Your task to perform on an android device: turn notification dots on Image 0: 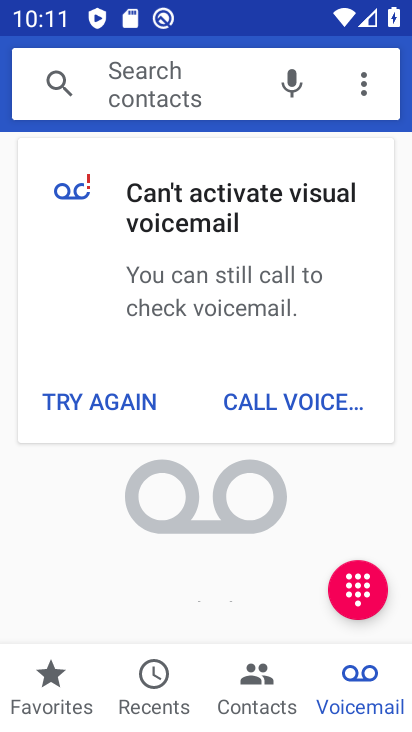
Step 0: press home button
Your task to perform on an android device: turn notification dots on Image 1: 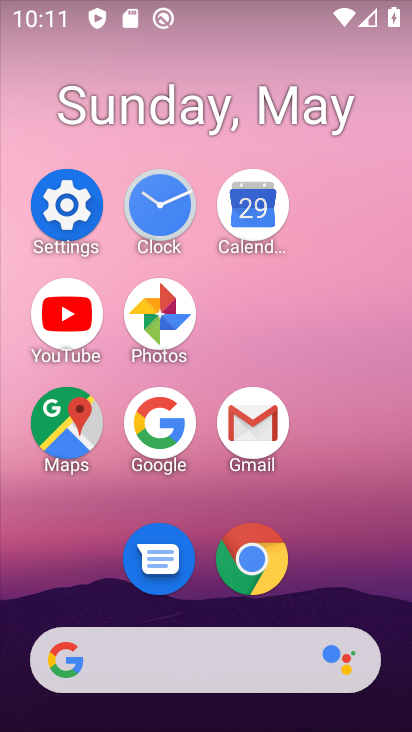
Step 1: click (55, 165)
Your task to perform on an android device: turn notification dots on Image 2: 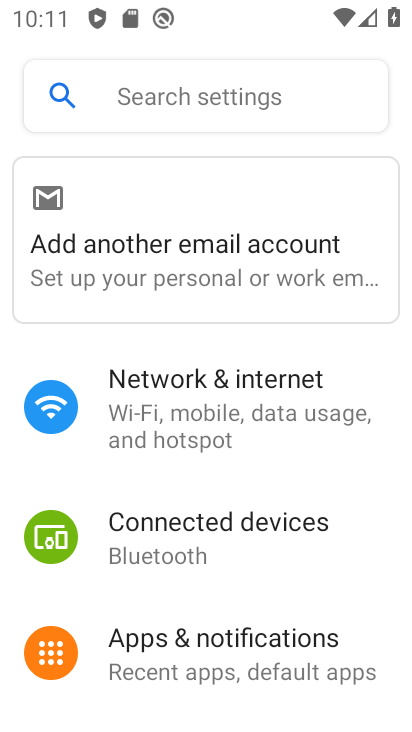
Step 2: click (290, 649)
Your task to perform on an android device: turn notification dots on Image 3: 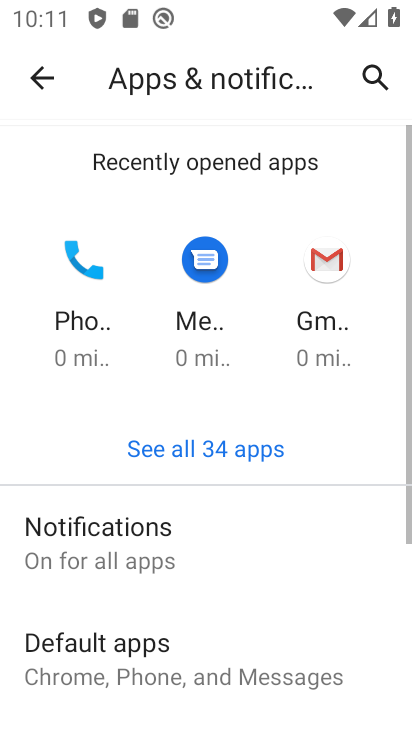
Step 3: click (208, 538)
Your task to perform on an android device: turn notification dots on Image 4: 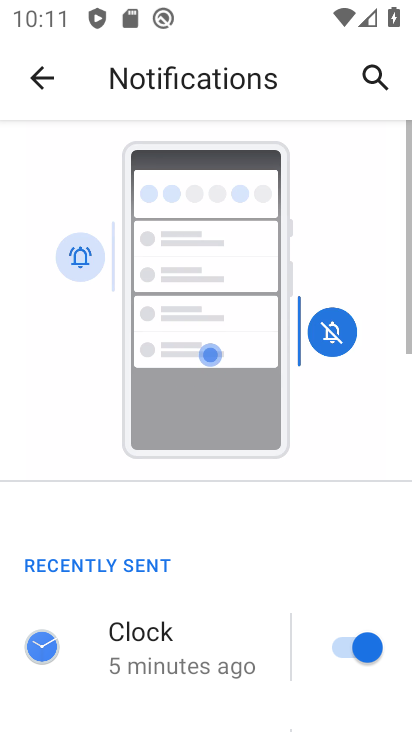
Step 4: drag from (208, 534) to (244, 120)
Your task to perform on an android device: turn notification dots on Image 5: 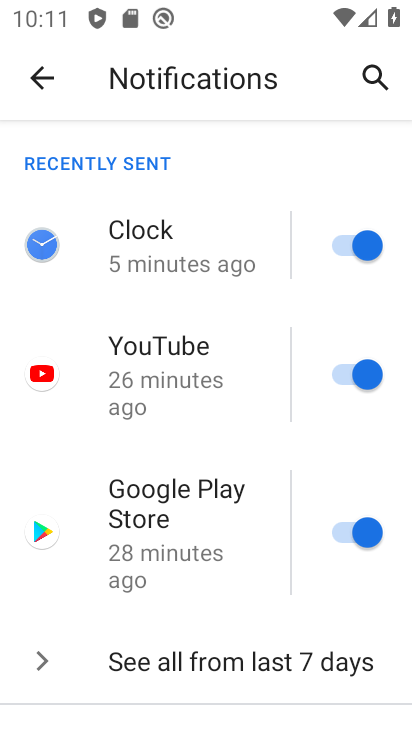
Step 5: click (221, 106)
Your task to perform on an android device: turn notification dots on Image 6: 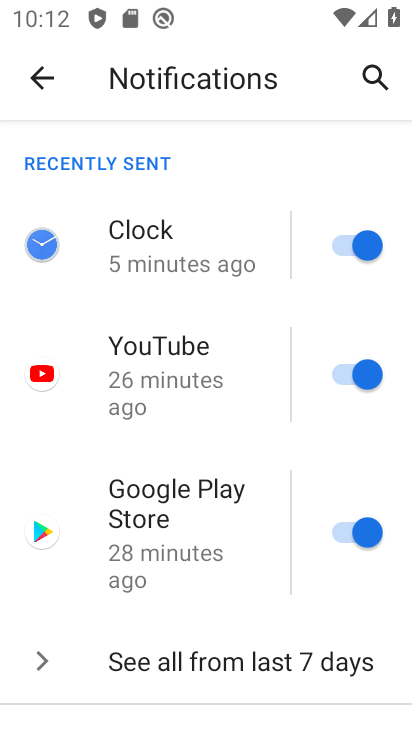
Step 6: drag from (262, 615) to (272, 205)
Your task to perform on an android device: turn notification dots on Image 7: 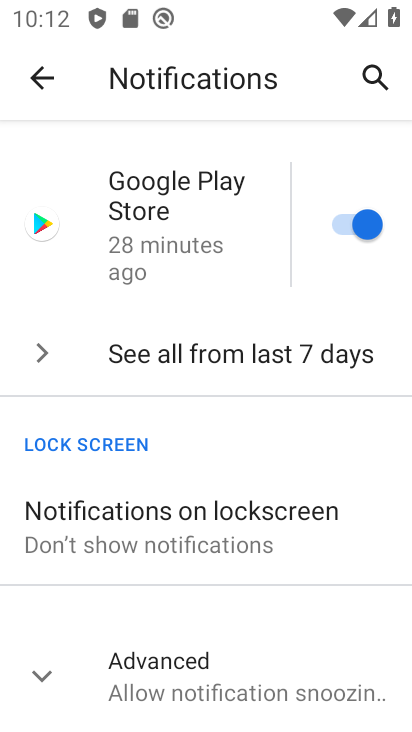
Step 7: click (240, 690)
Your task to perform on an android device: turn notification dots on Image 8: 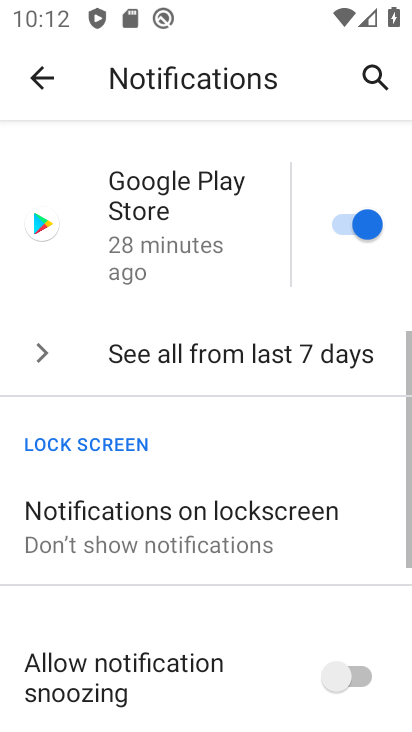
Step 8: drag from (228, 616) to (250, 109)
Your task to perform on an android device: turn notification dots on Image 9: 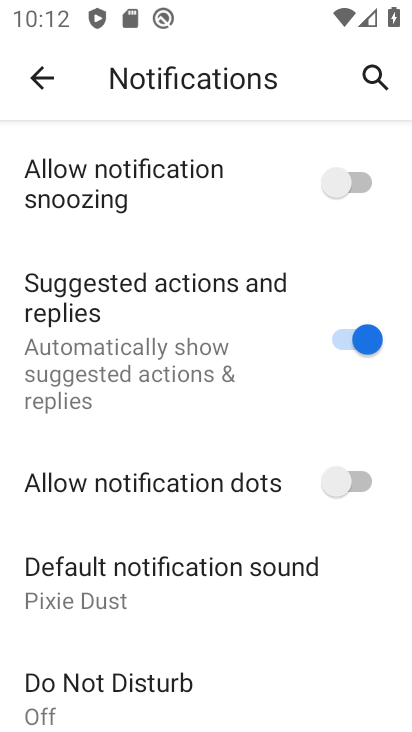
Step 9: click (340, 487)
Your task to perform on an android device: turn notification dots on Image 10: 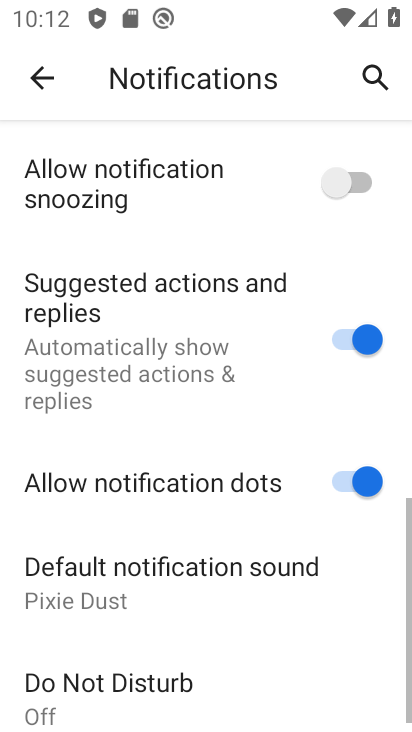
Step 10: task complete